Your task to perform on an android device: Open Yahoo.com Image 0: 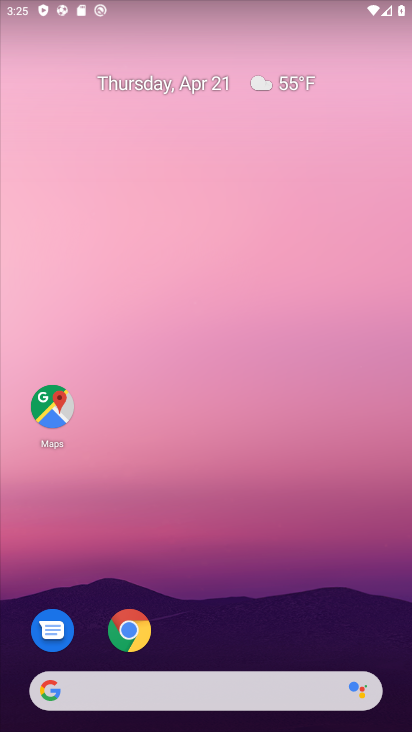
Step 0: click (129, 634)
Your task to perform on an android device: Open Yahoo.com Image 1: 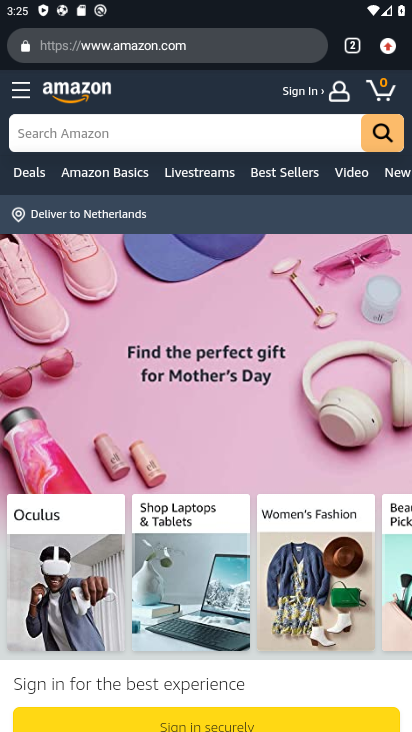
Step 1: click (298, 49)
Your task to perform on an android device: Open Yahoo.com Image 2: 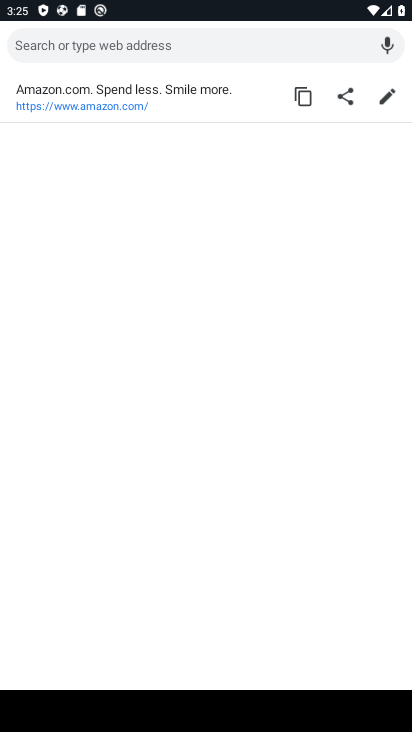
Step 2: type "yahoo.com"
Your task to perform on an android device: Open Yahoo.com Image 3: 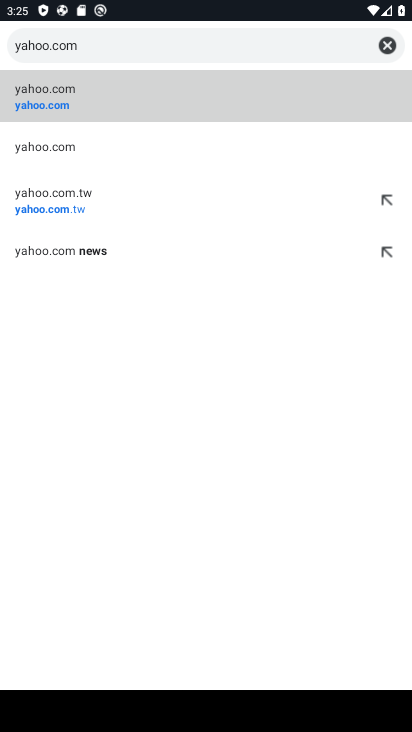
Step 3: click (35, 111)
Your task to perform on an android device: Open Yahoo.com Image 4: 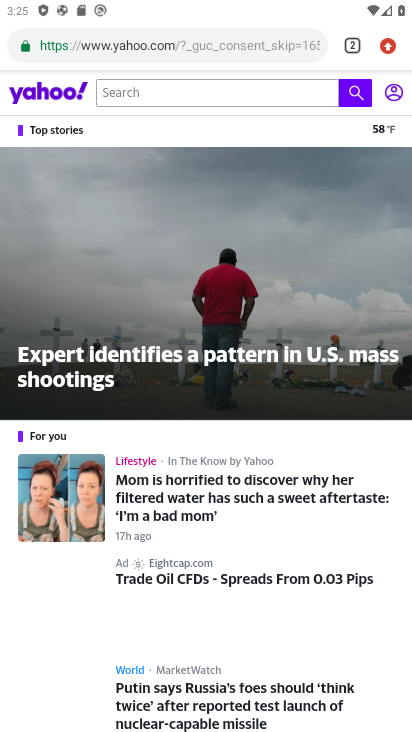
Step 4: task complete